Your task to perform on an android device: turn on notifications settings in the gmail app Image 0: 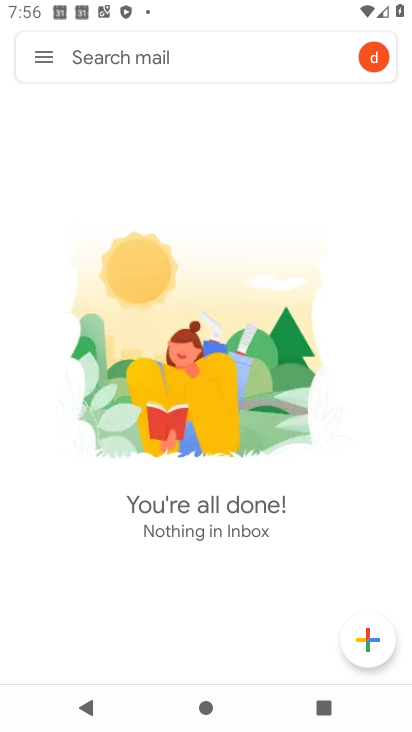
Step 0: press home button
Your task to perform on an android device: turn on notifications settings in the gmail app Image 1: 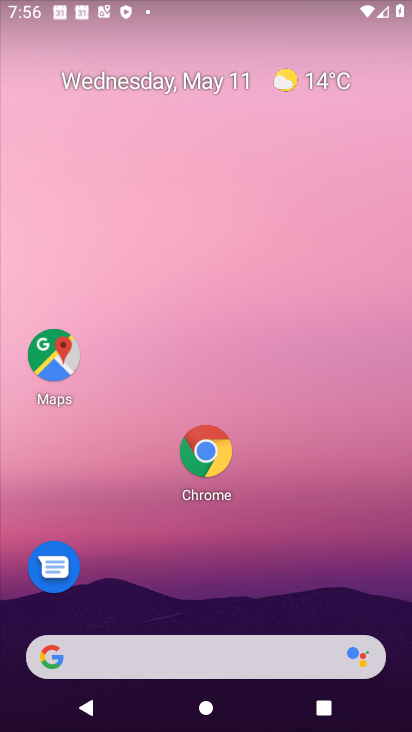
Step 1: drag from (164, 657) to (274, 249)
Your task to perform on an android device: turn on notifications settings in the gmail app Image 2: 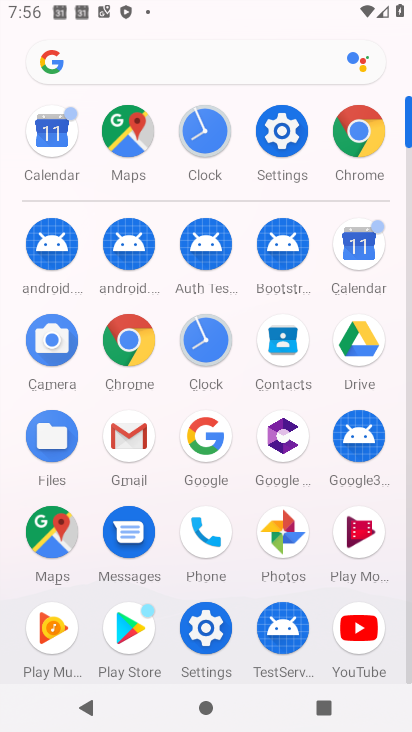
Step 2: click (134, 440)
Your task to perform on an android device: turn on notifications settings in the gmail app Image 3: 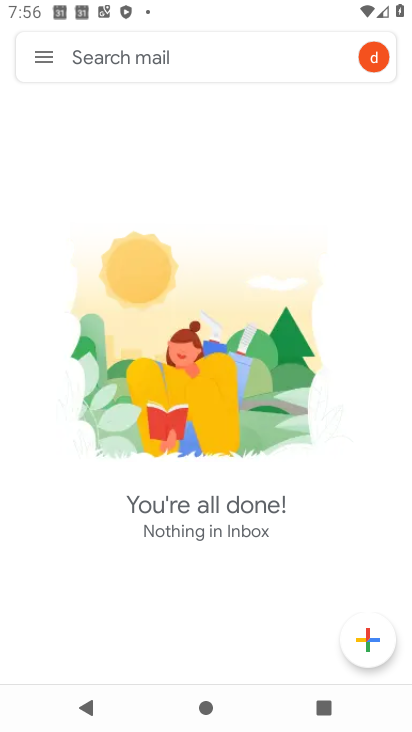
Step 3: click (45, 58)
Your task to perform on an android device: turn on notifications settings in the gmail app Image 4: 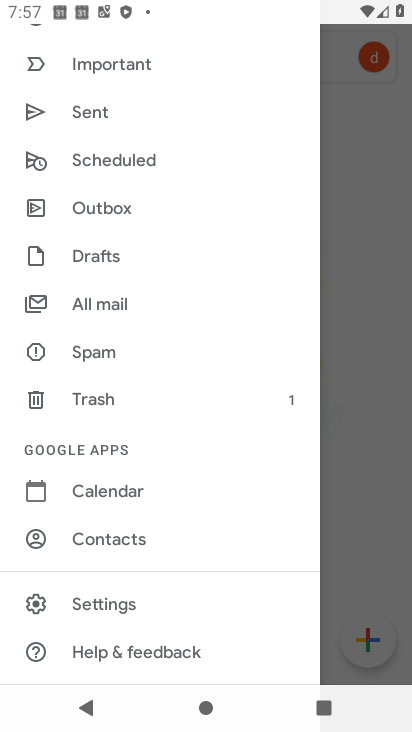
Step 4: click (126, 603)
Your task to perform on an android device: turn on notifications settings in the gmail app Image 5: 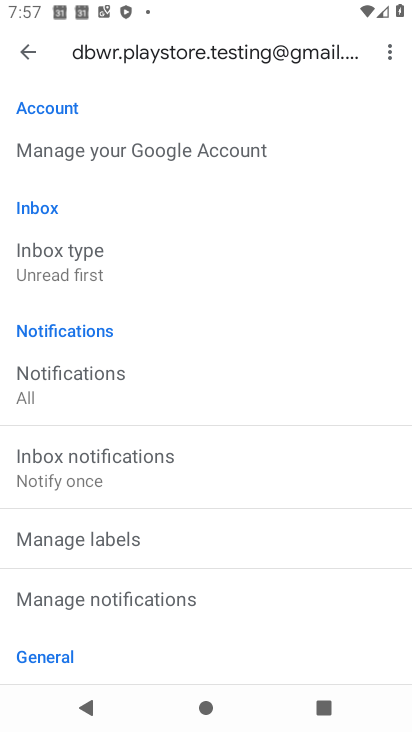
Step 5: click (108, 385)
Your task to perform on an android device: turn on notifications settings in the gmail app Image 6: 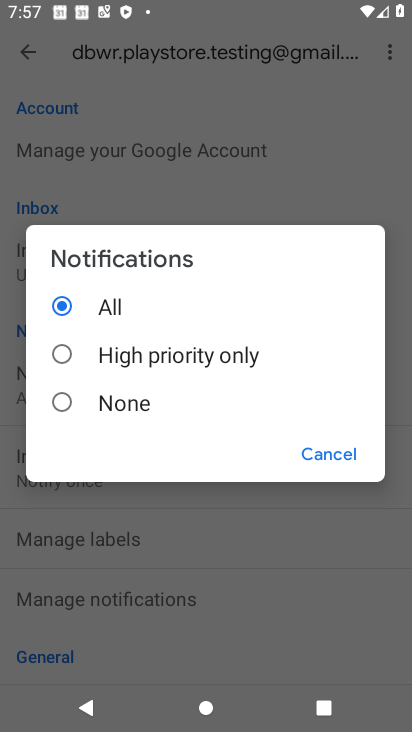
Step 6: task complete